Your task to perform on an android device: turn on notifications settings in the gmail app Image 0: 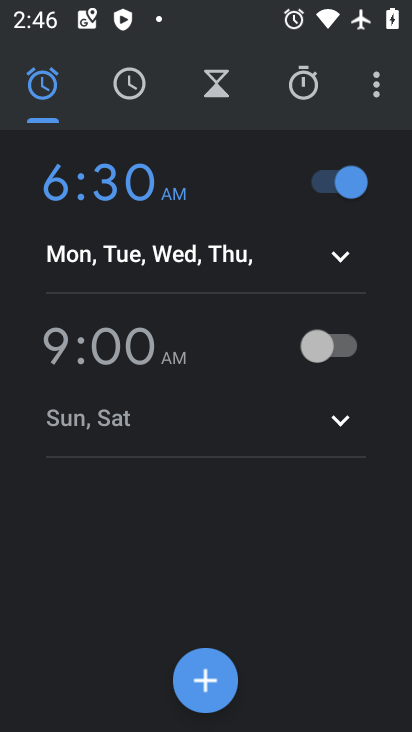
Step 0: press home button
Your task to perform on an android device: turn on notifications settings in the gmail app Image 1: 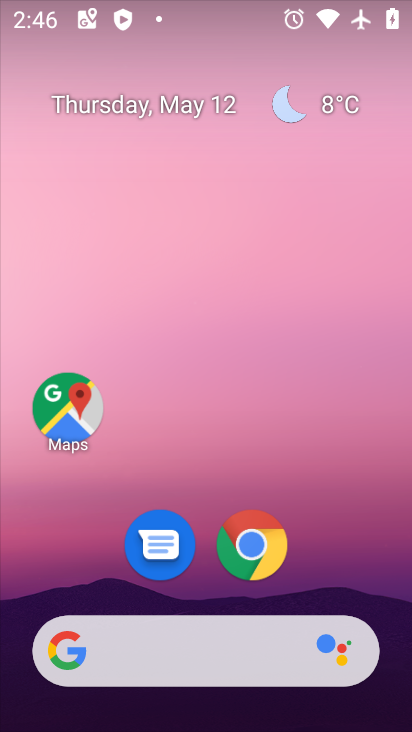
Step 1: drag from (384, 610) to (310, 141)
Your task to perform on an android device: turn on notifications settings in the gmail app Image 2: 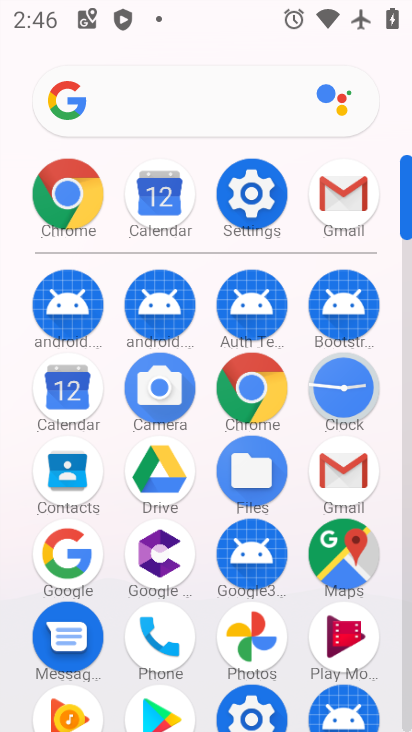
Step 2: click (348, 471)
Your task to perform on an android device: turn on notifications settings in the gmail app Image 3: 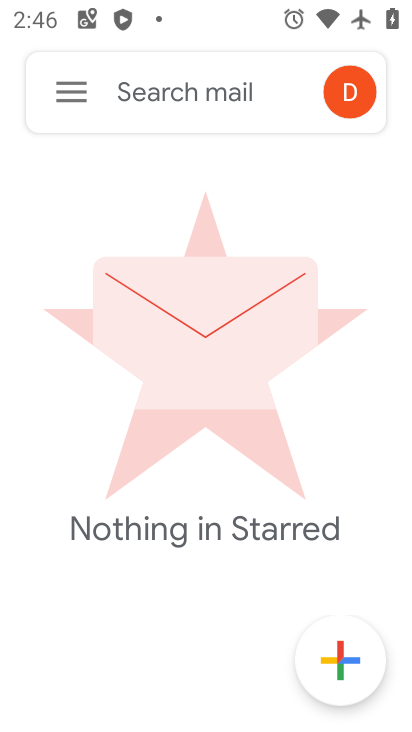
Step 3: click (66, 90)
Your task to perform on an android device: turn on notifications settings in the gmail app Image 4: 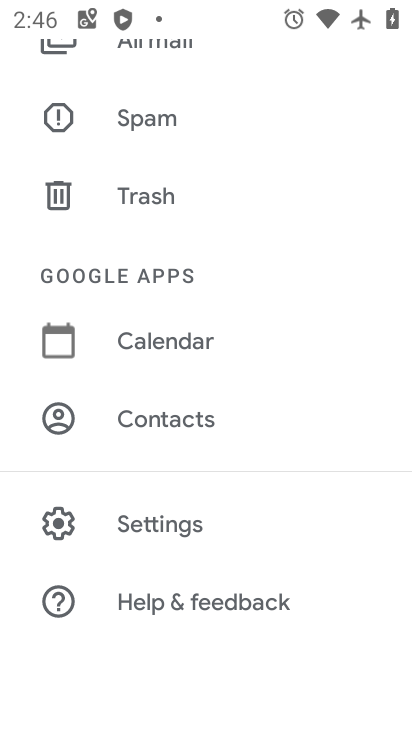
Step 4: click (160, 513)
Your task to perform on an android device: turn on notifications settings in the gmail app Image 5: 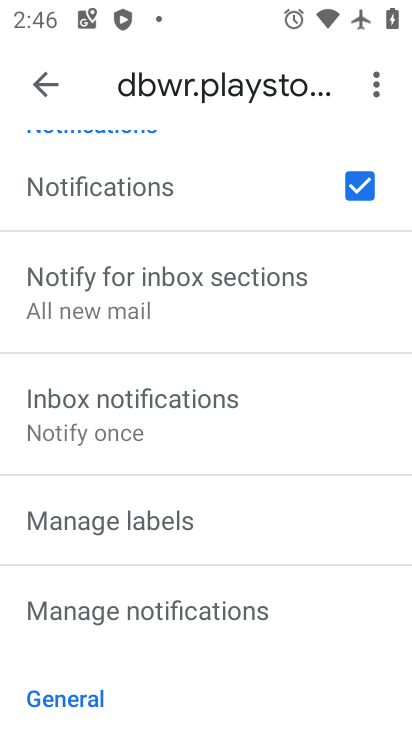
Step 5: click (148, 603)
Your task to perform on an android device: turn on notifications settings in the gmail app Image 6: 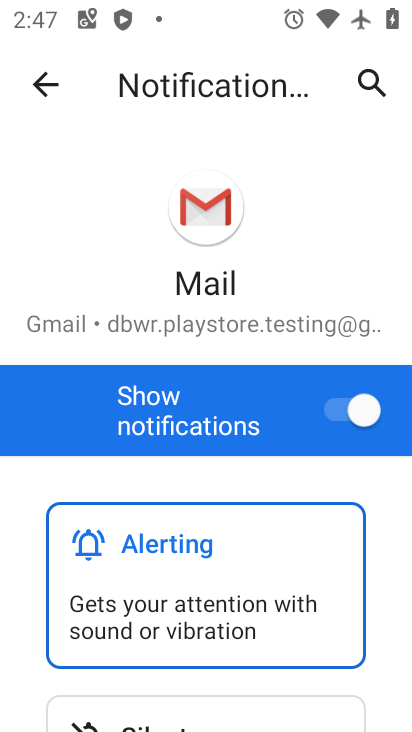
Step 6: task complete